Your task to perform on an android device: open wifi settings Image 0: 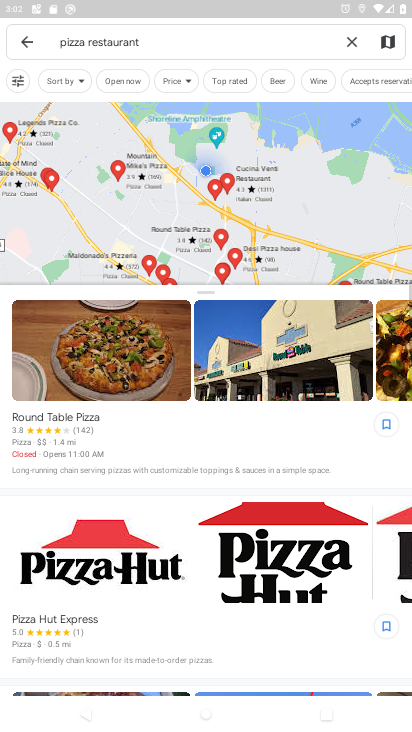
Step 0: press home button
Your task to perform on an android device: open wifi settings Image 1: 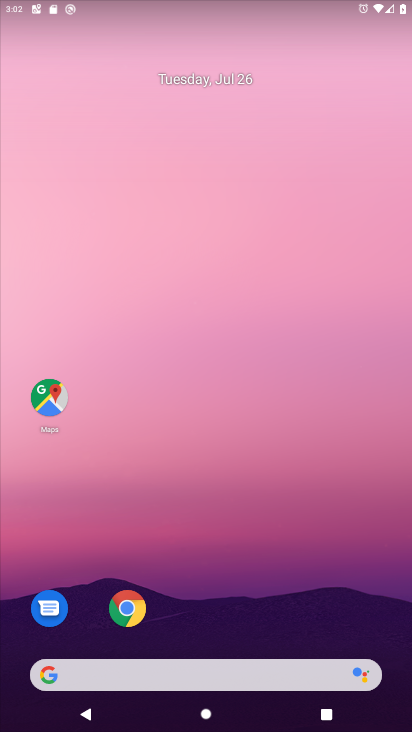
Step 1: drag from (280, 604) to (252, 175)
Your task to perform on an android device: open wifi settings Image 2: 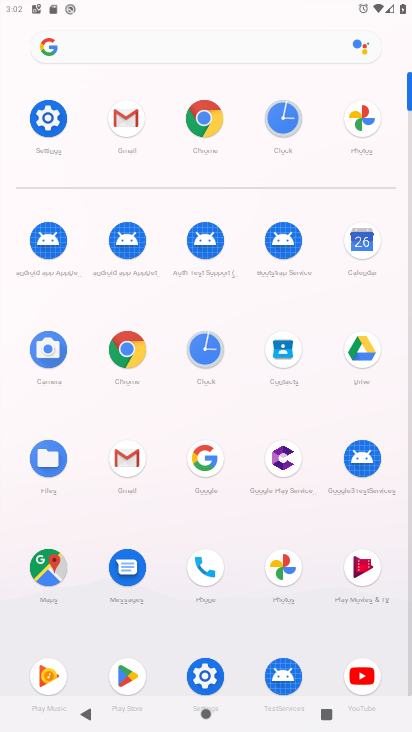
Step 2: click (42, 123)
Your task to perform on an android device: open wifi settings Image 3: 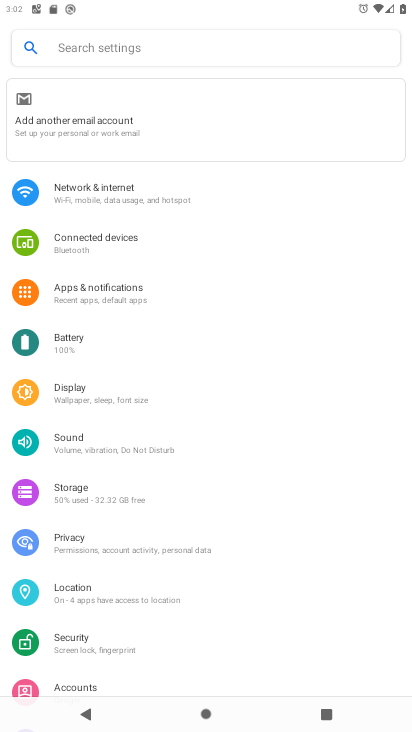
Step 3: click (134, 193)
Your task to perform on an android device: open wifi settings Image 4: 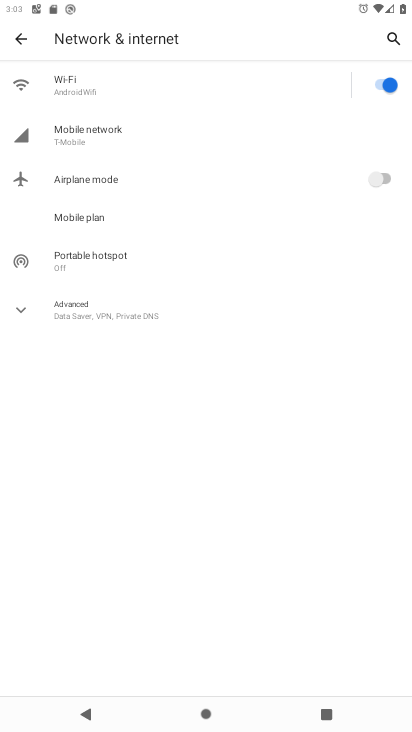
Step 4: click (212, 81)
Your task to perform on an android device: open wifi settings Image 5: 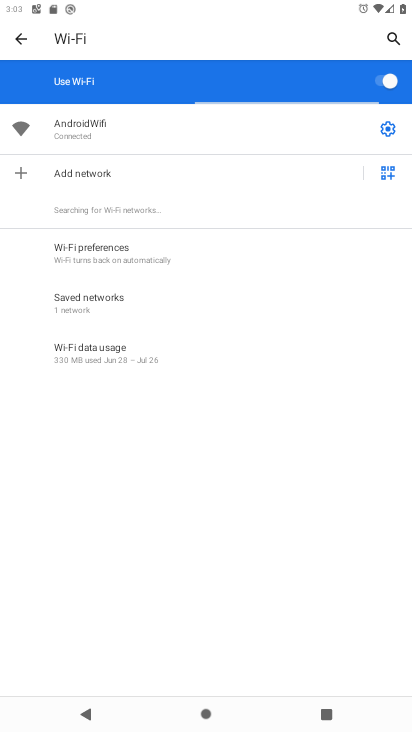
Step 5: task complete